Your task to perform on an android device: Open accessibility settings Image 0: 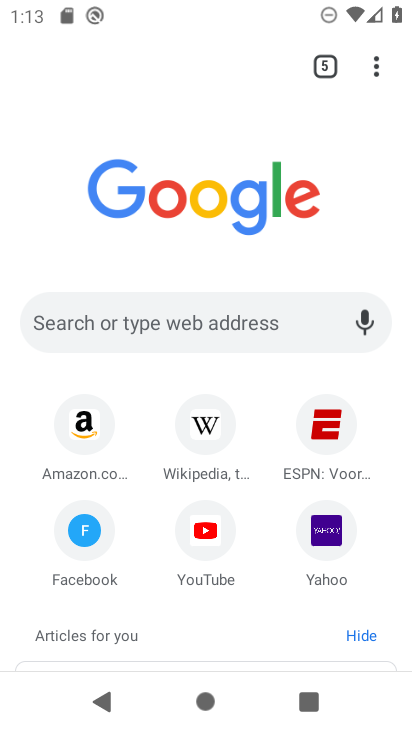
Step 0: press home button
Your task to perform on an android device: Open accessibility settings Image 1: 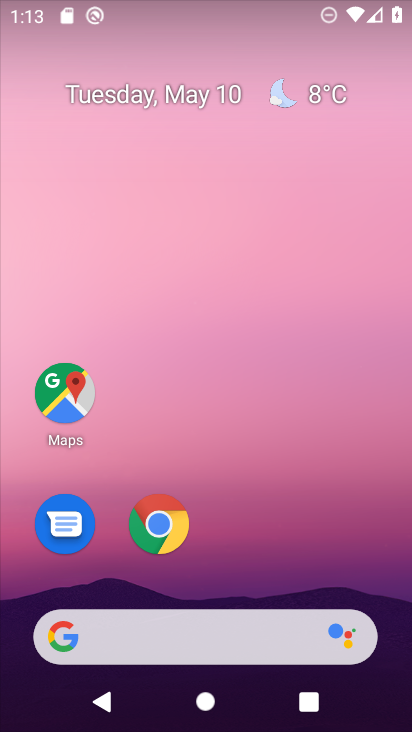
Step 1: drag from (230, 530) to (230, 71)
Your task to perform on an android device: Open accessibility settings Image 2: 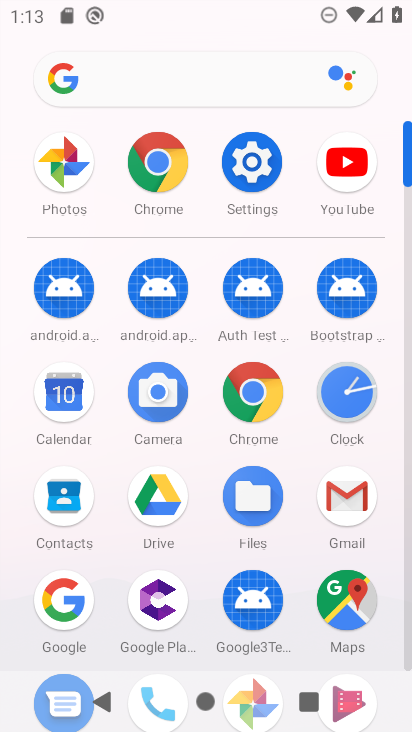
Step 2: click (245, 164)
Your task to perform on an android device: Open accessibility settings Image 3: 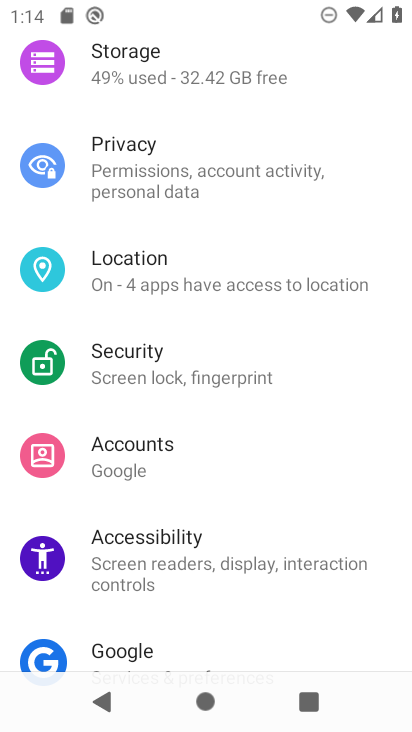
Step 3: click (219, 530)
Your task to perform on an android device: Open accessibility settings Image 4: 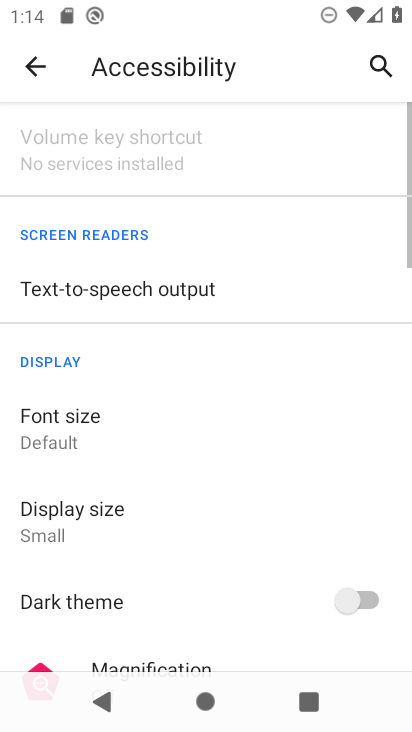
Step 4: task complete